Your task to perform on an android device: Open privacy settings Image 0: 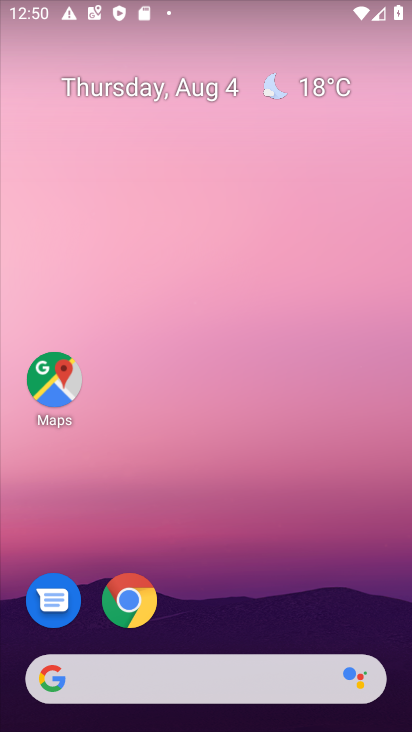
Step 0: drag from (141, 668) to (287, 134)
Your task to perform on an android device: Open privacy settings Image 1: 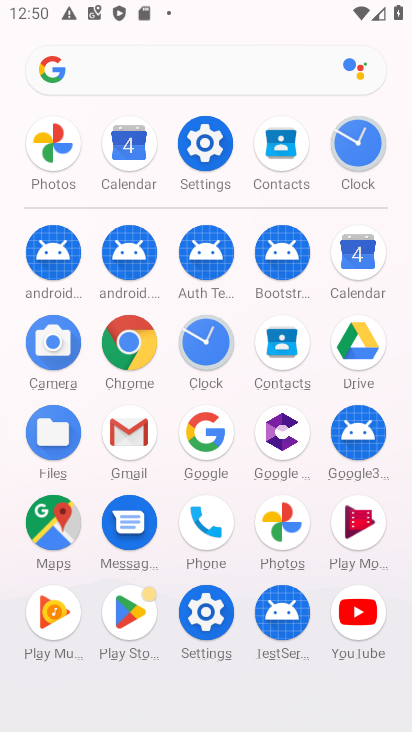
Step 1: click (205, 140)
Your task to perform on an android device: Open privacy settings Image 2: 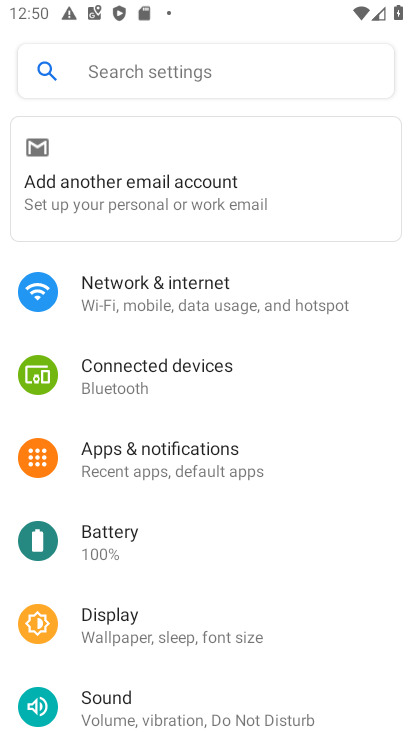
Step 2: drag from (189, 564) to (294, 149)
Your task to perform on an android device: Open privacy settings Image 3: 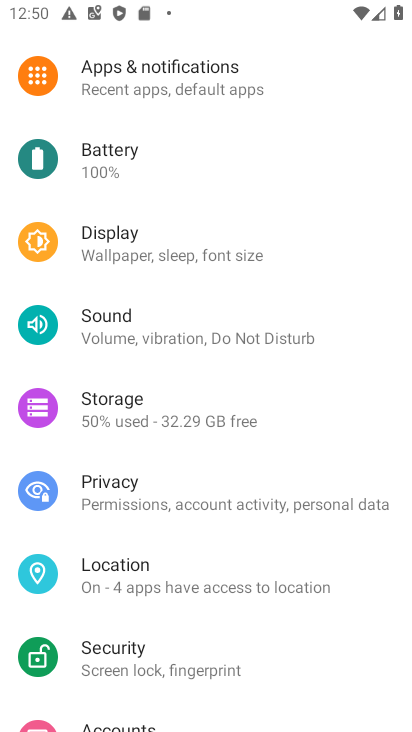
Step 3: click (126, 492)
Your task to perform on an android device: Open privacy settings Image 4: 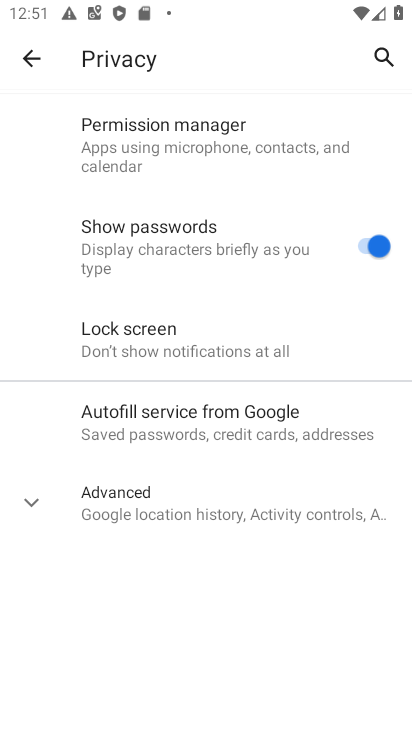
Step 4: task complete